Your task to perform on an android device: turn on sleep mode Image 0: 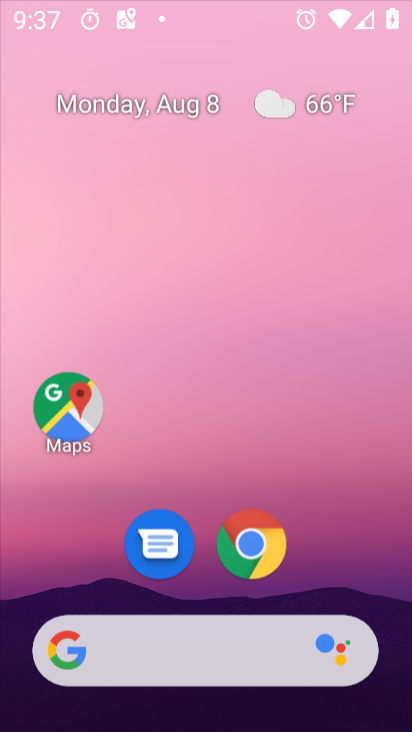
Step 0: press home button
Your task to perform on an android device: turn on sleep mode Image 1: 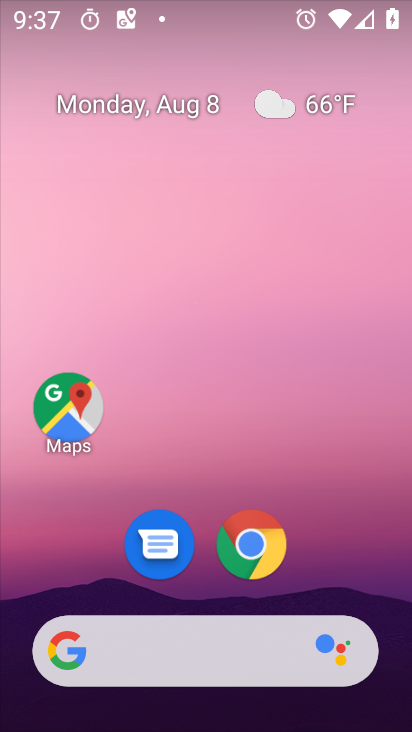
Step 1: drag from (296, 589) to (301, 61)
Your task to perform on an android device: turn on sleep mode Image 2: 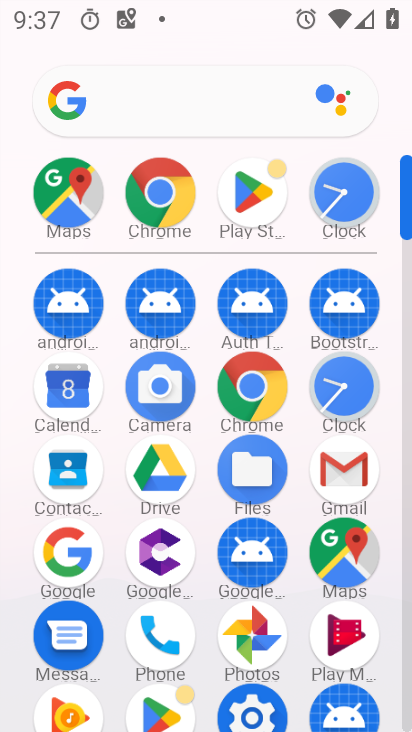
Step 2: click (243, 708)
Your task to perform on an android device: turn on sleep mode Image 3: 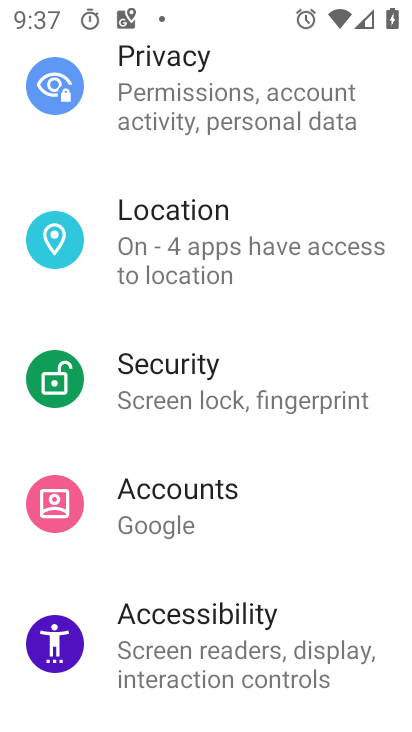
Step 3: drag from (213, 77) to (184, 720)
Your task to perform on an android device: turn on sleep mode Image 4: 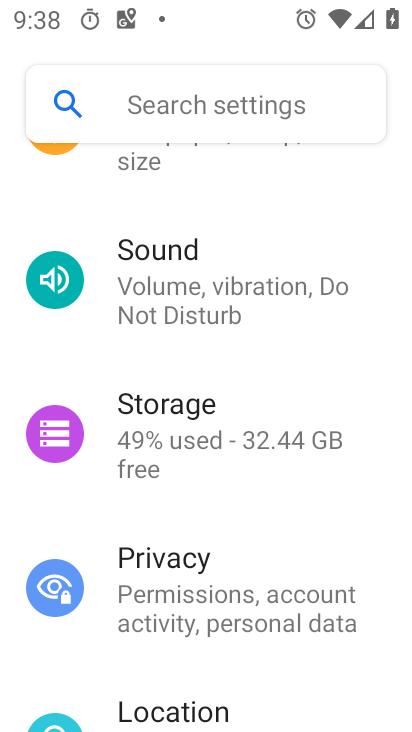
Step 4: drag from (162, 191) to (163, 716)
Your task to perform on an android device: turn on sleep mode Image 5: 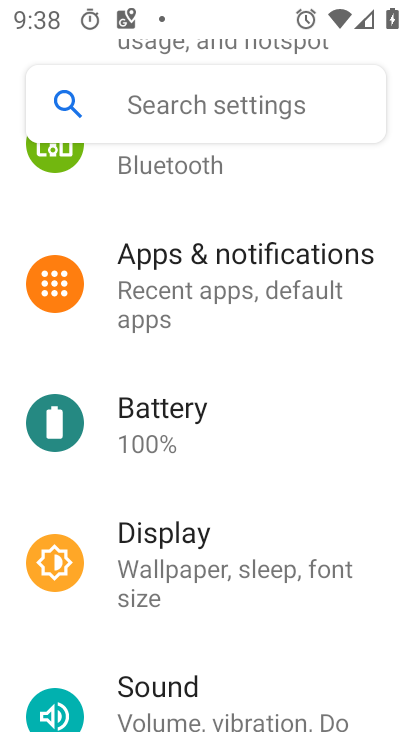
Step 5: click (228, 531)
Your task to perform on an android device: turn on sleep mode Image 6: 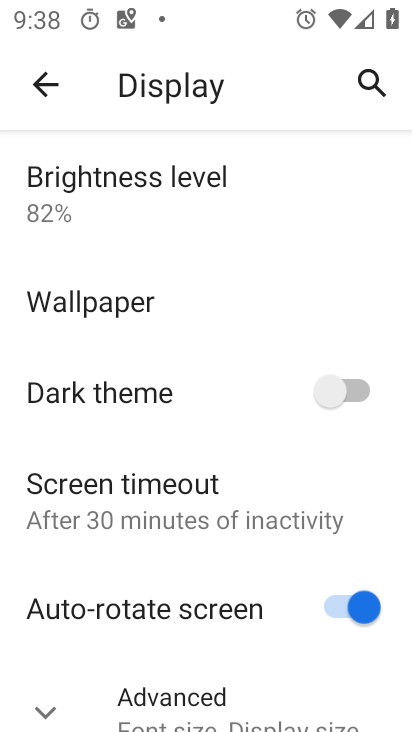
Step 6: click (40, 701)
Your task to perform on an android device: turn on sleep mode Image 7: 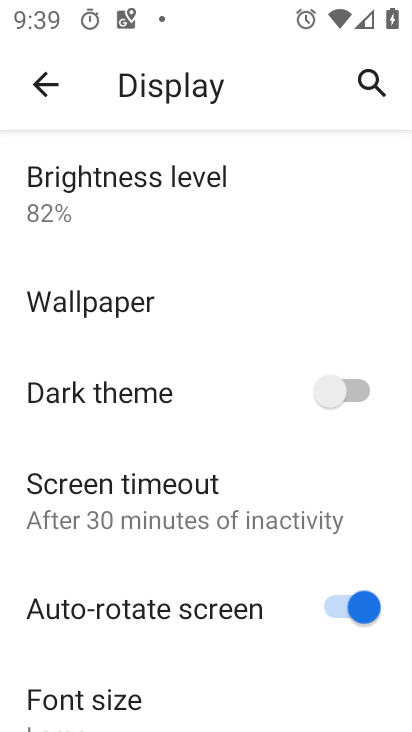
Step 7: task complete